Your task to perform on an android device: check google app version Image 0: 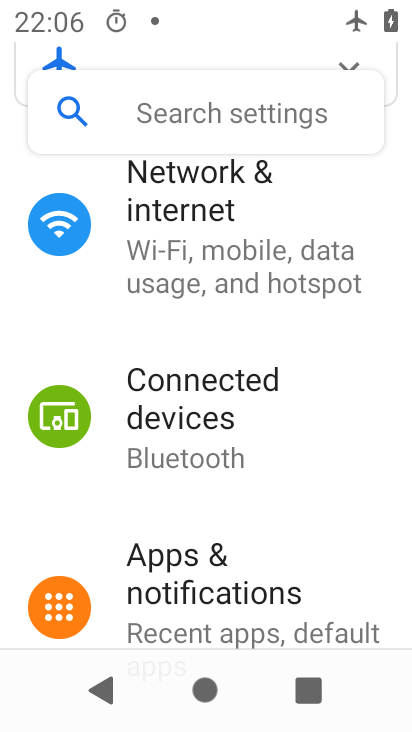
Step 0: press home button
Your task to perform on an android device: check google app version Image 1: 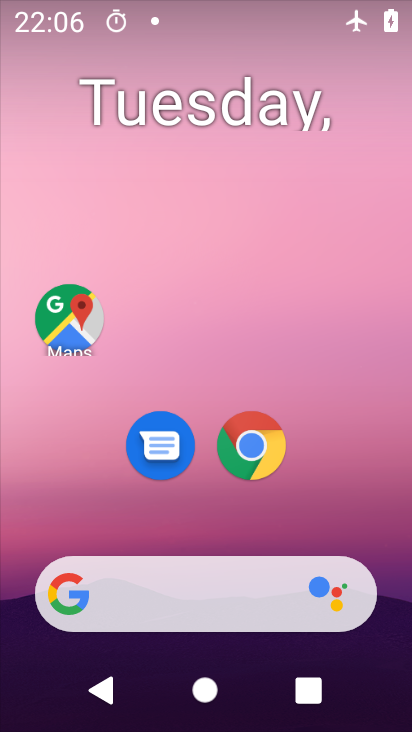
Step 1: click (264, 446)
Your task to perform on an android device: check google app version Image 2: 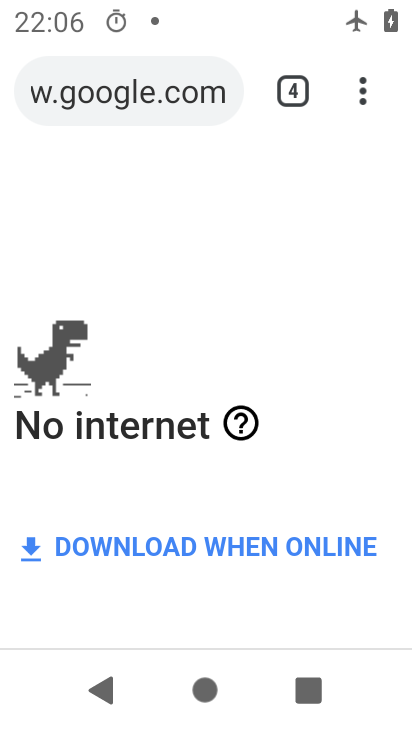
Step 2: click (353, 88)
Your task to perform on an android device: check google app version Image 3: 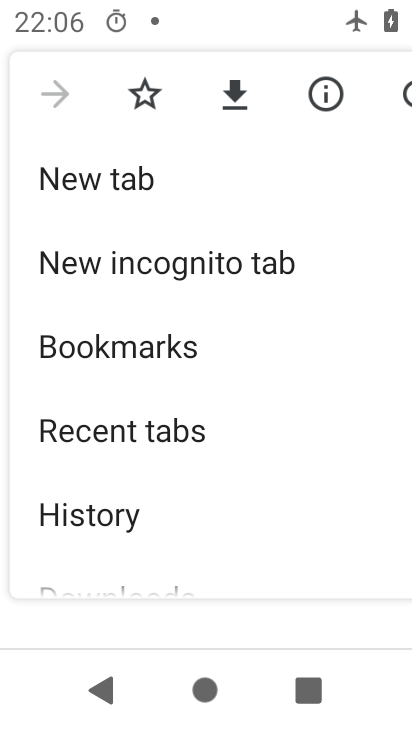
Step 3: drag from (251, 573) to (208, 236)
Your task to perform on an android device: check google app version Image 4: 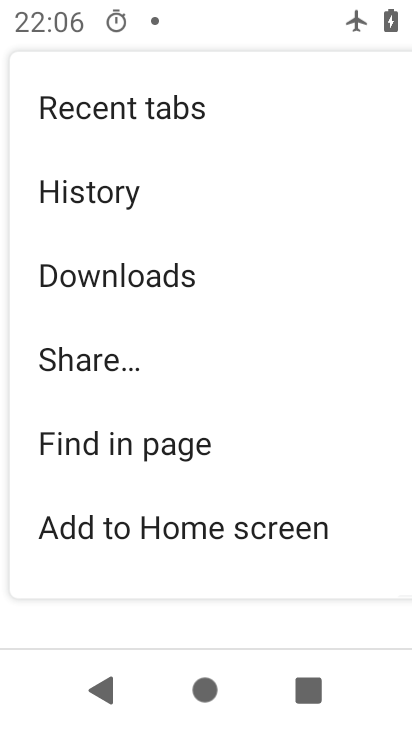
Step 4: drag from (198, 495) to (197, 113)
Your task to perform on an android device: check google app version Image 5: 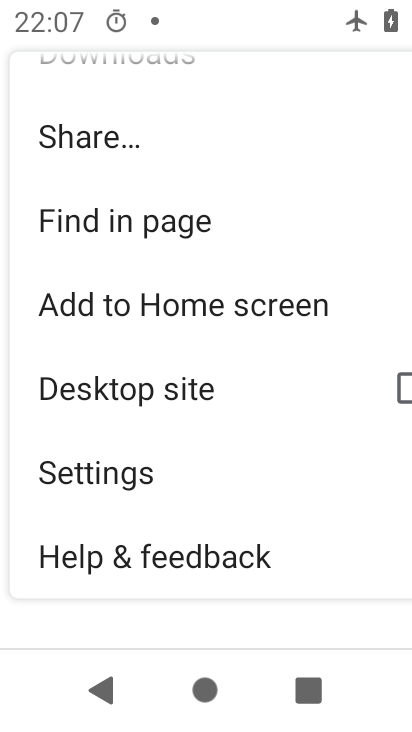
Step 5: click (142, 564)
Your task to perform on an android device: check google app version Image 6: 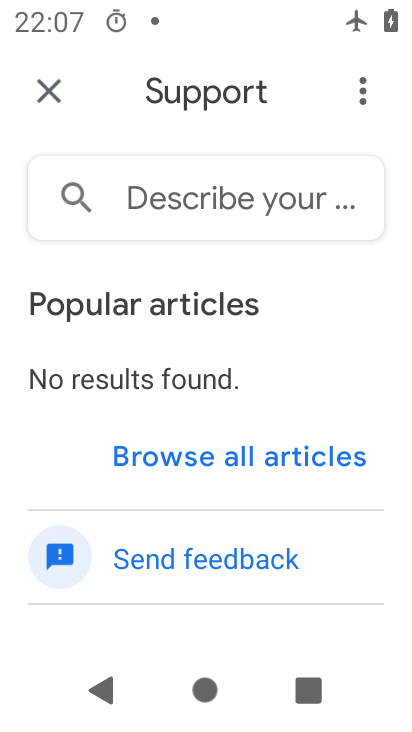
Step 6: click (366, 115)
Your task to perform on an android device: check google app version Image 7: 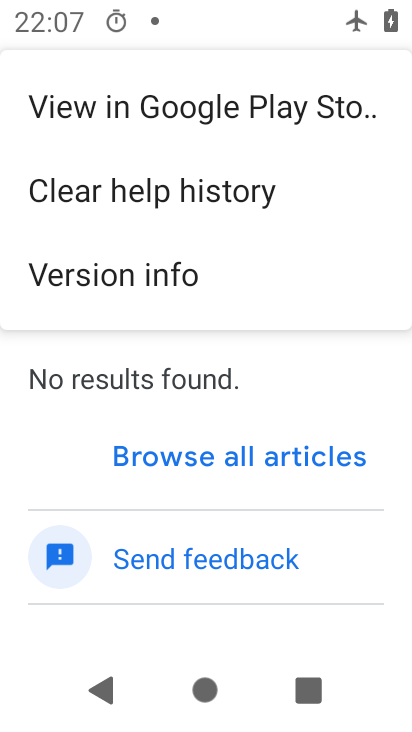
Step 7: click (308, 266)
Your task to perform on an android device: check google app version Image 8: 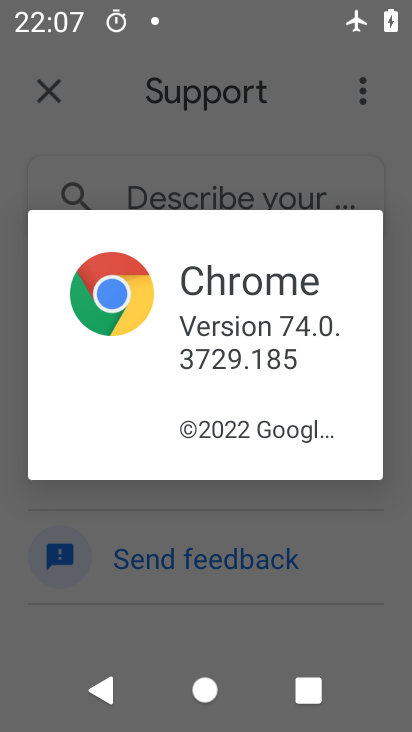
Step 8: task complete